Your task to perform on an android device: turn off sleep mode Image 0: 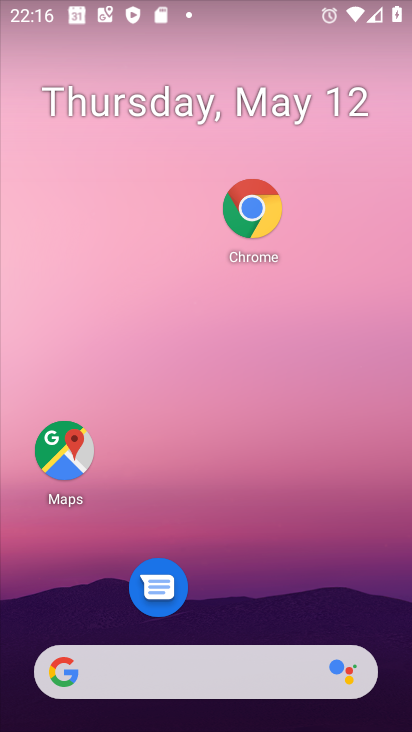
Step 0: drag from (310, 603) to (298, 136)
Your task to perform on an android device: turn off sleep mode Image 1: 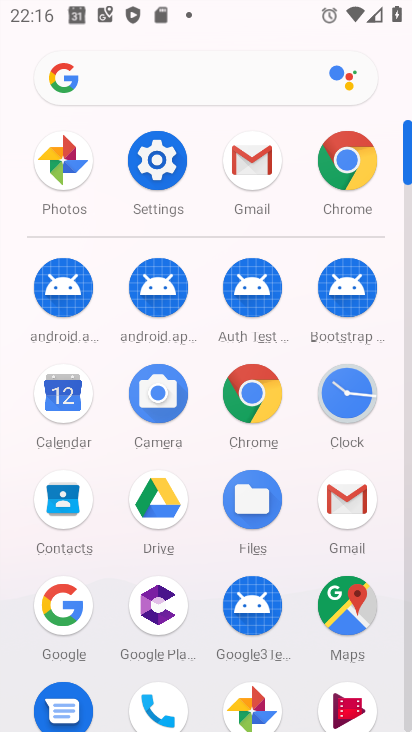
Step 1: click (146, 145)
Your task to perform on an android device: turn off sleep mode Image 2: 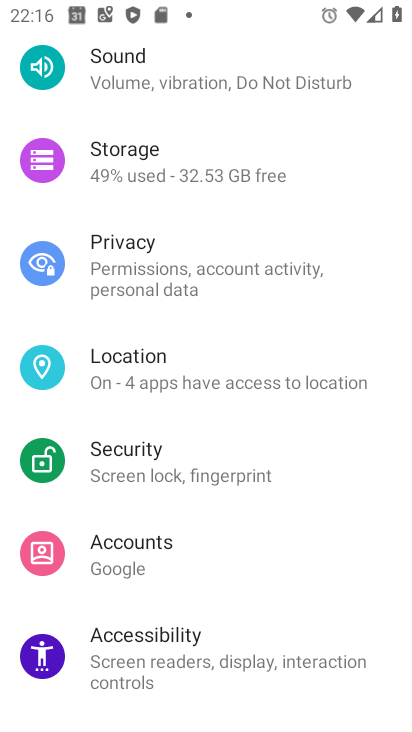
Step 2: task complete